Your task to perform on an android device: turn off translation in the chrome app Image 0: 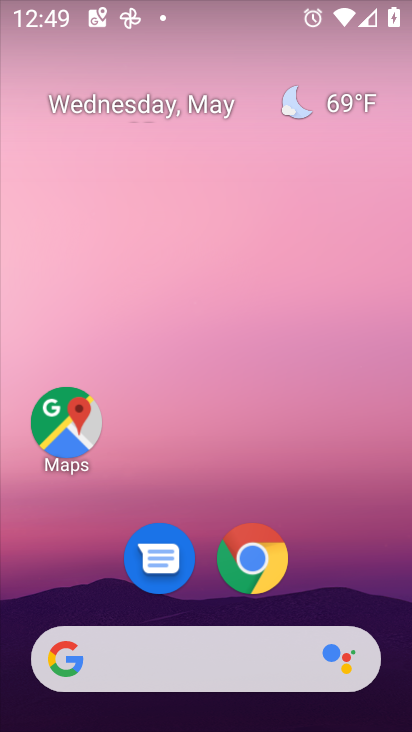
Step 0: drag from (385, 646) to (265, 1)
Your task to perform on an android device: turn off translation in the chrome app Image 1: 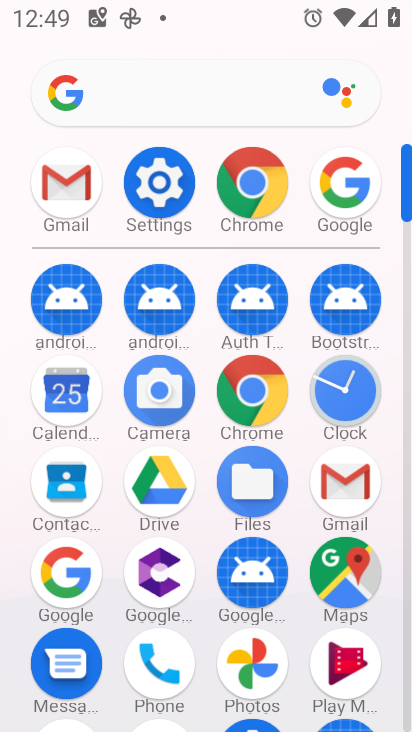
Step 1: click (261, 191)
Your task to perform on an android device: turn off translation in the chrome app Image 2: 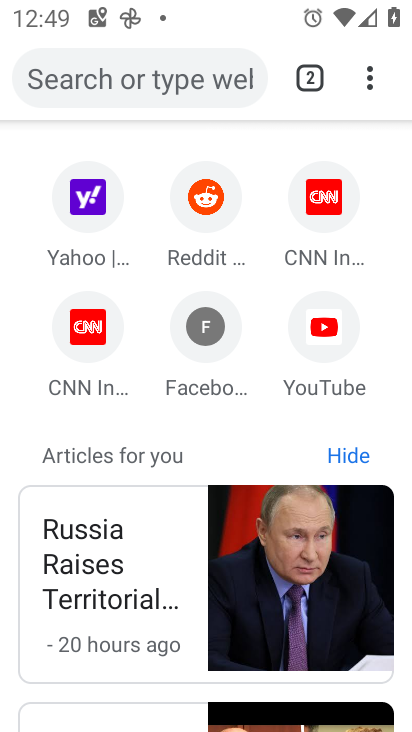
Step 2: click (375, 65)
Your task to perform on an android device: turn off translation in the chrome app Image 3: 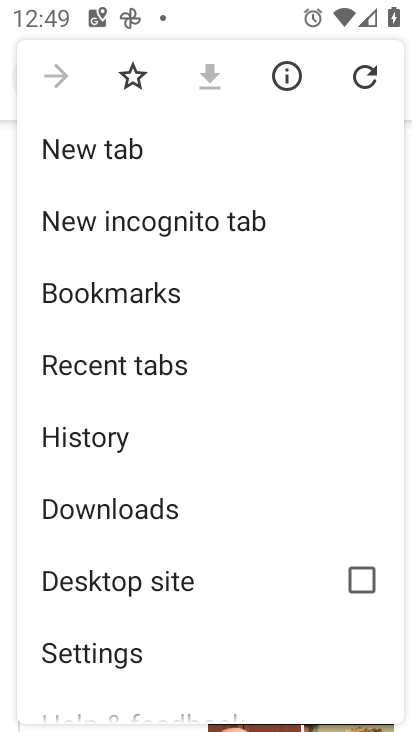
Step 3: click (148, 662)
Your task to perform on an android device: turn off translation in the chrome app Image 4: 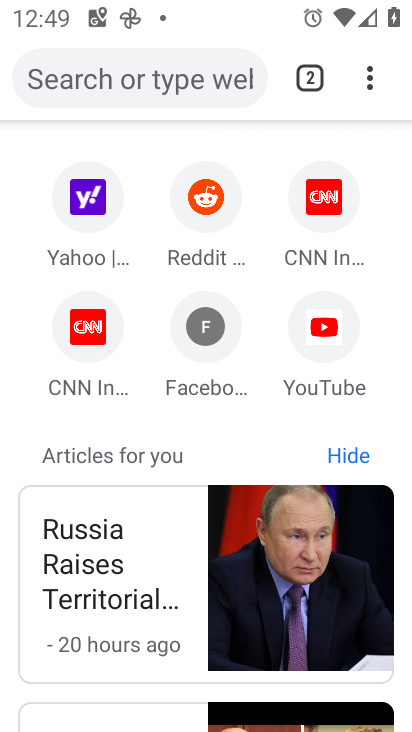
Step 4: drag from (148, 662) to (213, 107)
Your task to perform on an android device: turn off translation in the chrome app Image 5: 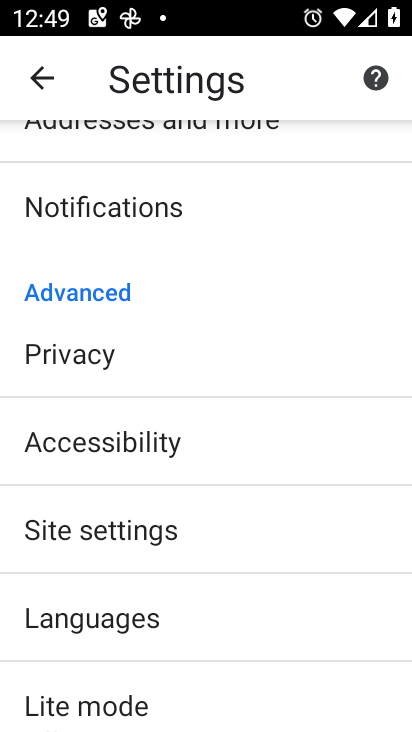
Step 5: click (145, 607)
Your task to perform on an android device: turn off translation in the chrome app Image 6: 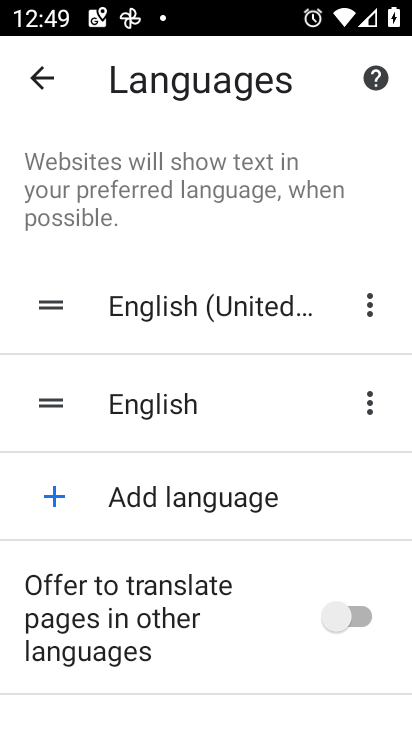
Step 6: task complete